Your task to perform on an android device: find snoozed emails in the gmail app Image 0: 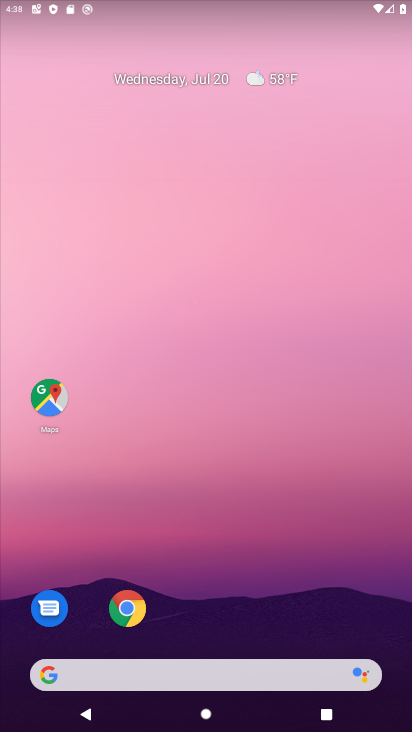
Step 0: drag from (197, 632) to (161, 38)
Your task to perform on an android device: find snoozed emails in the gmail app Image 1: 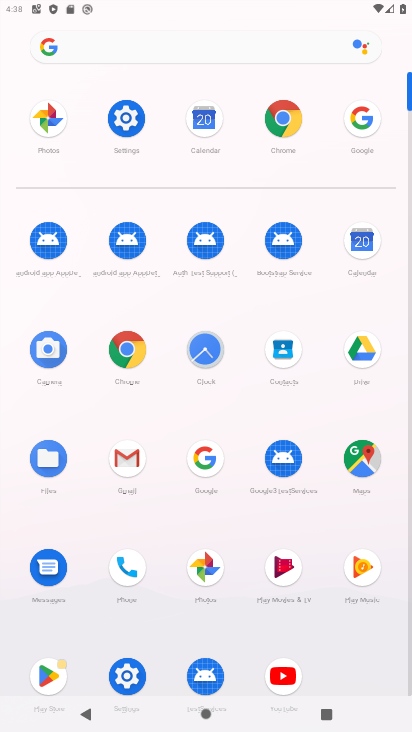
Step 1: click (131, 457)
Your task to perform on an android device: find snoozed emails in the gmail app Image 2: 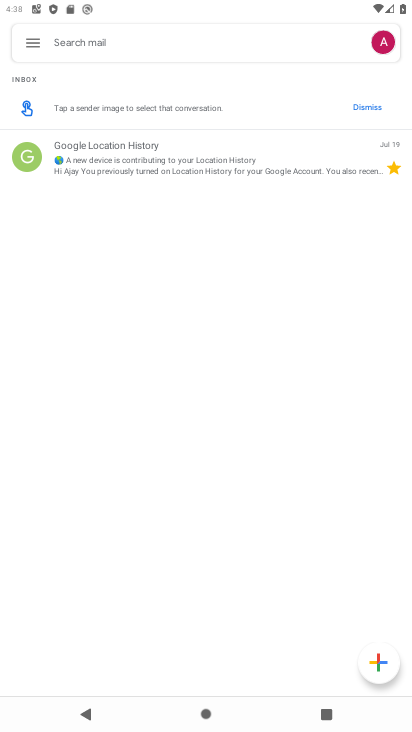
Step 2: click (32, 51)
Your task to perform on an android device: find snoozed emails in the gmail app Image 3: 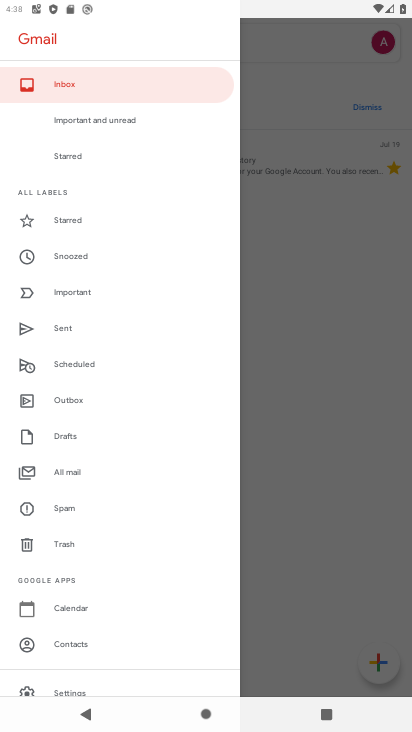
Step 3: click (53, 247)
Your task to perform on an android device: find snoozed emails in the gmail app Image 4: 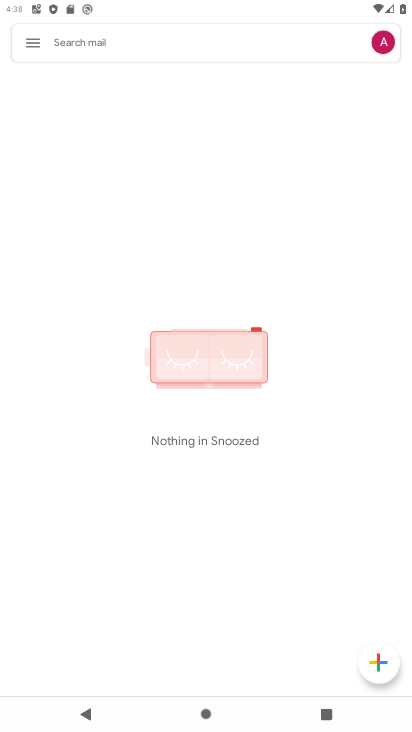
Step 4: task complete